Your task to perform on an android device: turn on improve location accuracy Image 0: 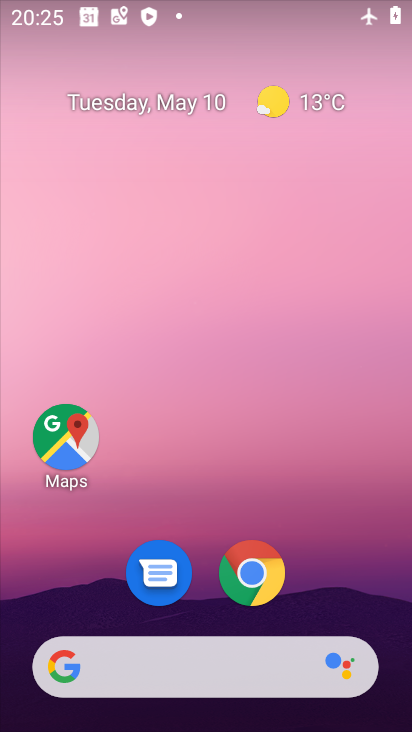
Step 0: drag from (337, 577) to (321, 3)
Your task to perform on an android device: turn on improve location accuracy Image 1: 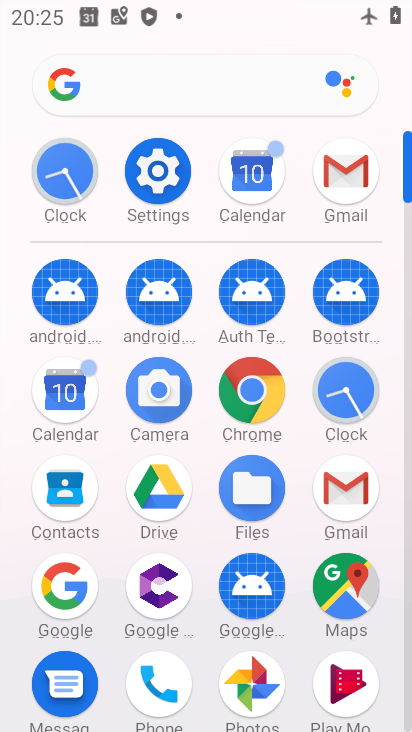
Step 1: click (153, 196)
Your task to perform on an android device: turn on improve location accuracy Image 2: 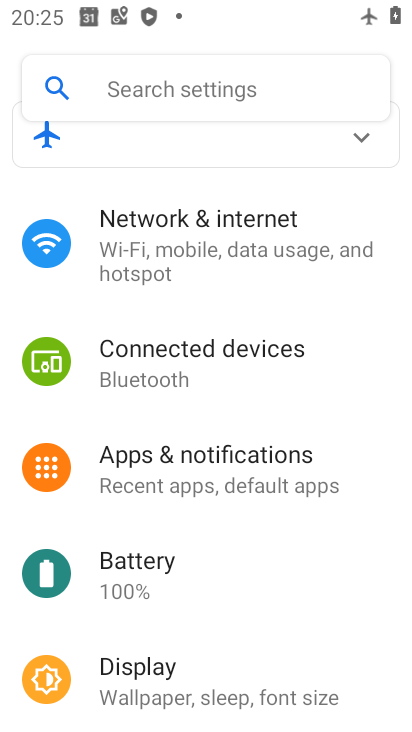
Step 2: drag from (326, 603) to (304, 133)
Your task to perform on an android device: turn on improve location accuracy Image 3: 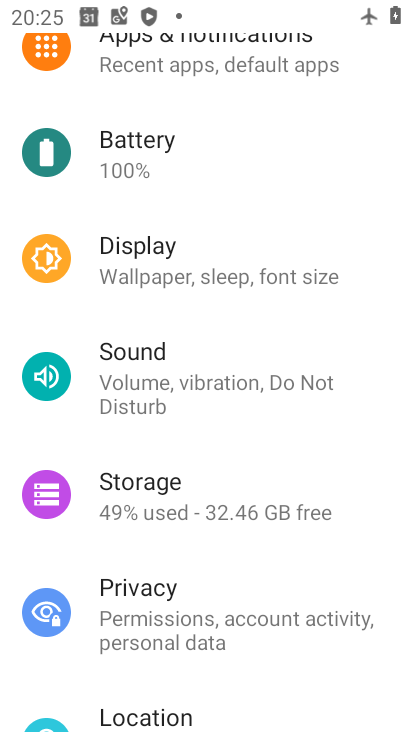
Step 3: drag from (288, 599) to (293, 81)
Your task to perform on an android device: turn on improve location accuracy Image 4: 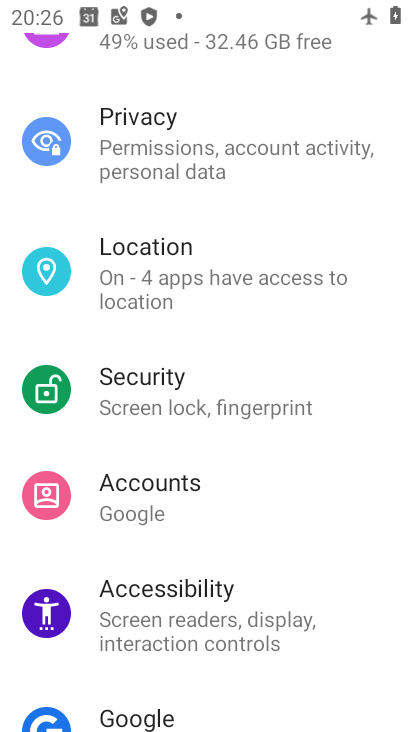
Step 4: click (132, 295)
Your task to perform on an android device: turn on improve location accuracy Image 5: 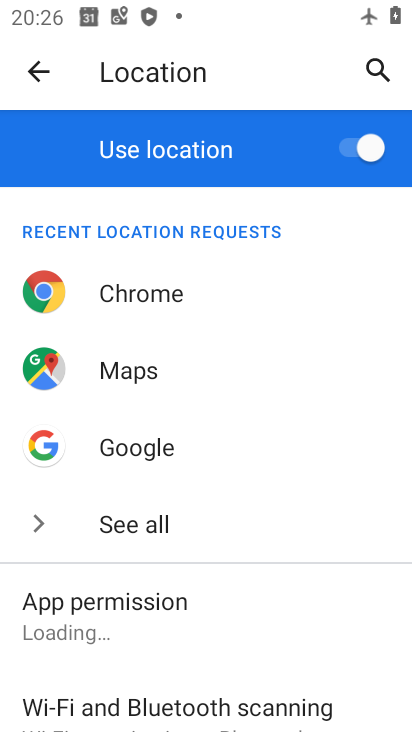
Step 5: drag from (210, 516) to (199, 25)
Your task to perform on an android device: turn on improve location accuracy Image 6: 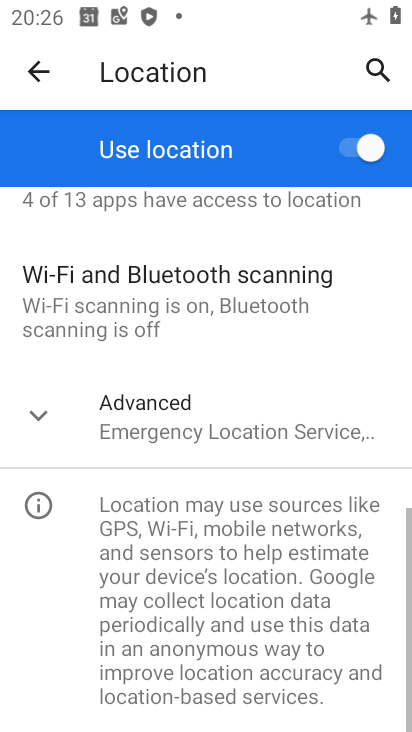
Step 6: click (30, 429)
Your task to perform on an android device: turn on improve location accuracy Image 7: 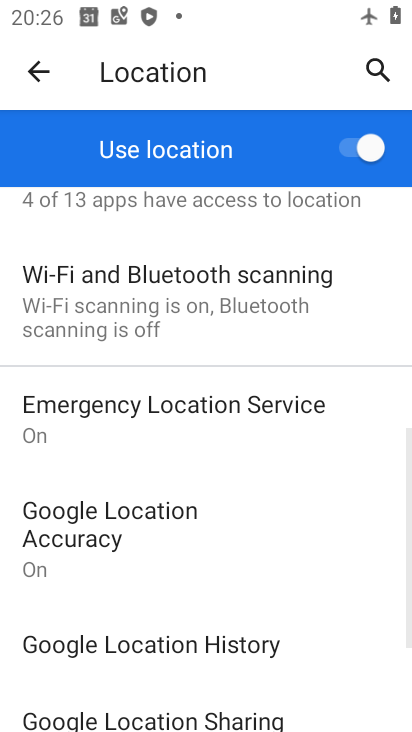
Step 7: click (105, 544)
Your task to perform on an android device: turn on improve location accuracy Image 8: 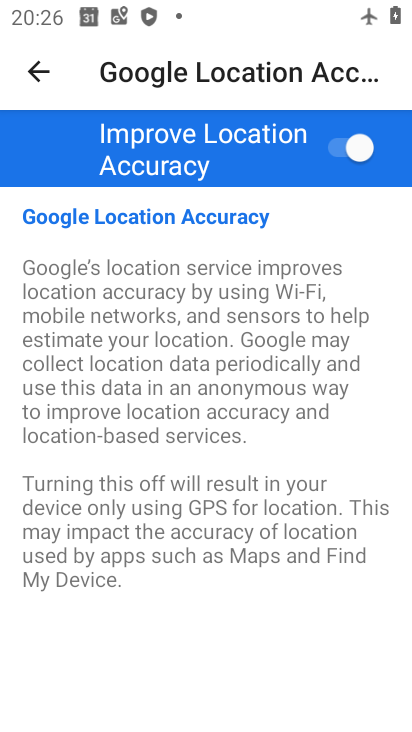
Step 8: task complete